Your task to perform on an android device: Go to Yahoo.com Image 0: 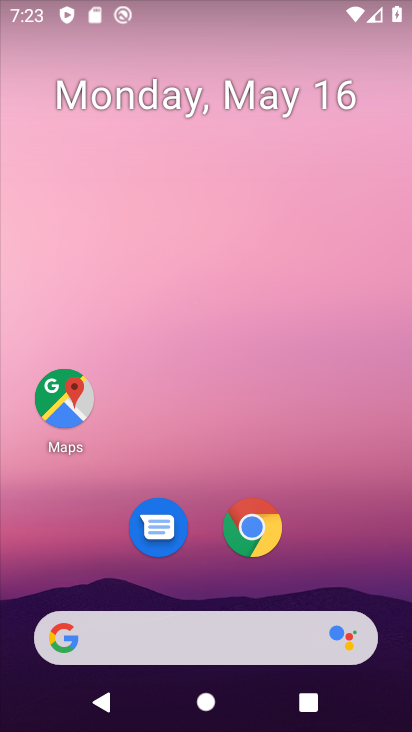
Step 0: click (255, 540)
Your task to perform on an android device: Go to Yahoo.com Image 1: 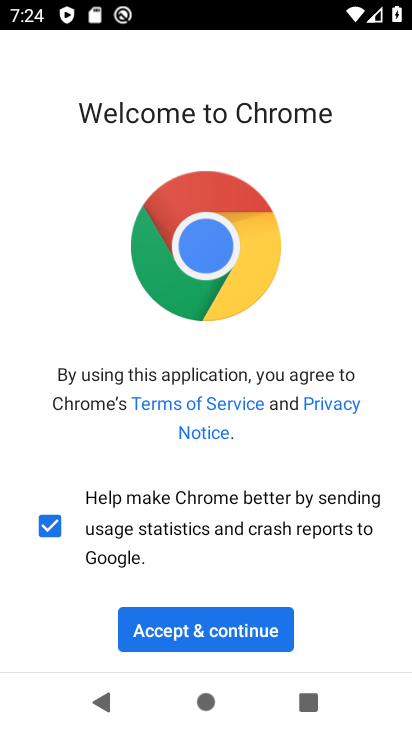
Step 1: click (260, 628)
Your task to perform on an android device: Go to Yahoo.com Image 2: 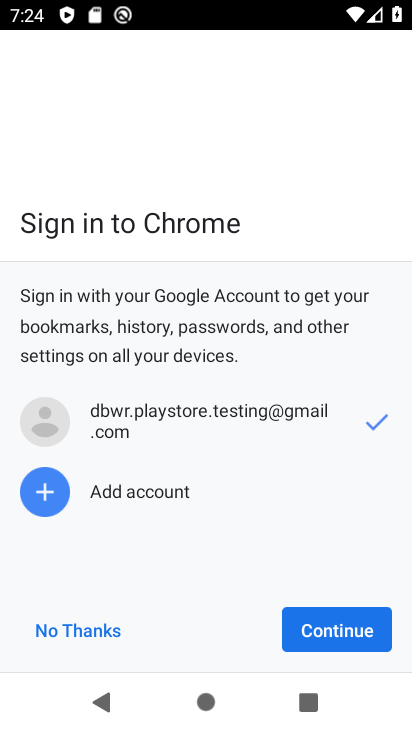
Step 2: click (333, 638)
Your task to perform on an android device: Go to Yahoo.com Image 3: 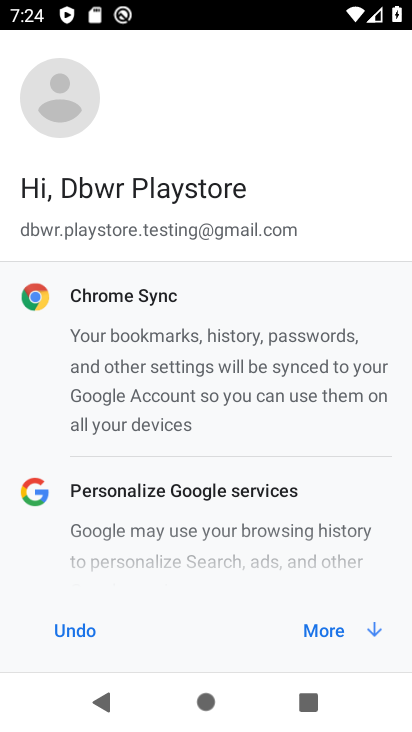
Step 3: click (333, 638)
Your task to perform on an android device: Go to Yahoo.com Image 4: 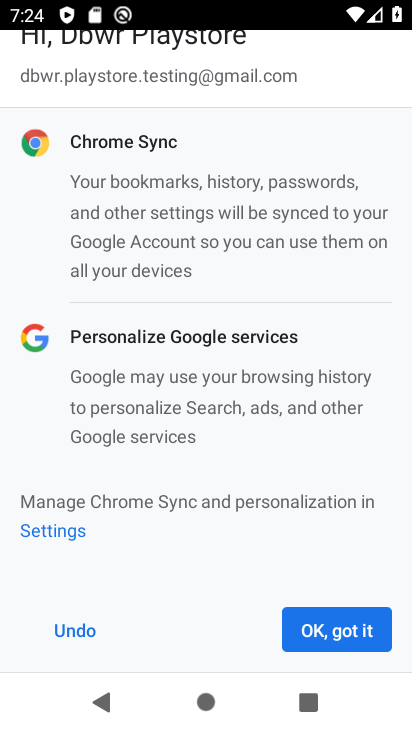
Step 4: click (333, 638)
Your task to perform on an android device: Go to Yahoo.com Image 5: 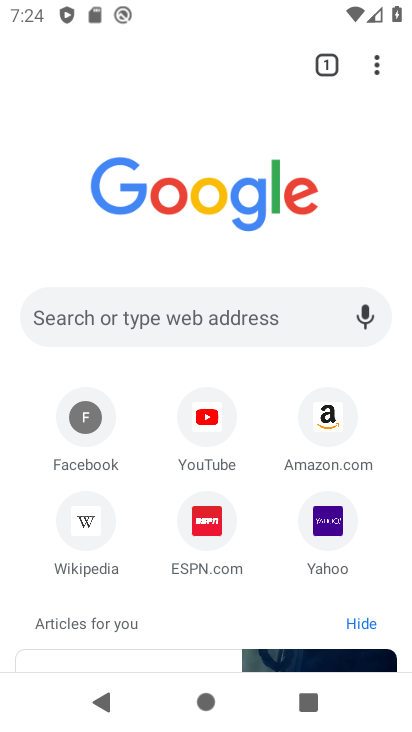
Step 5: click (324, 526)
Your task to perform on an android device: Go to Yahoo.com Image 6: 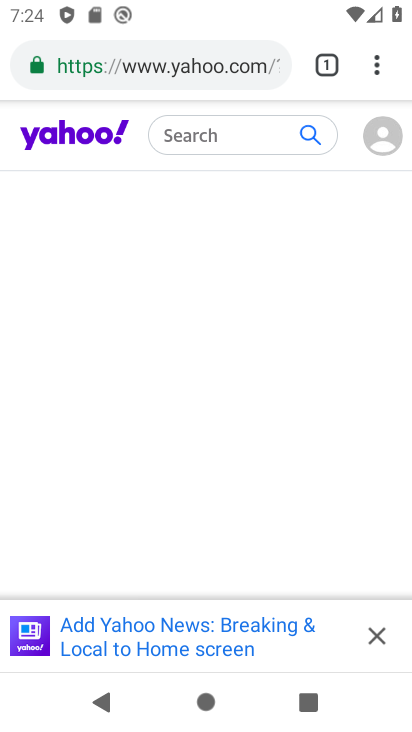
Step 6: task complete